Your task to perform on an android device: Go to ESPN.com Image 0: 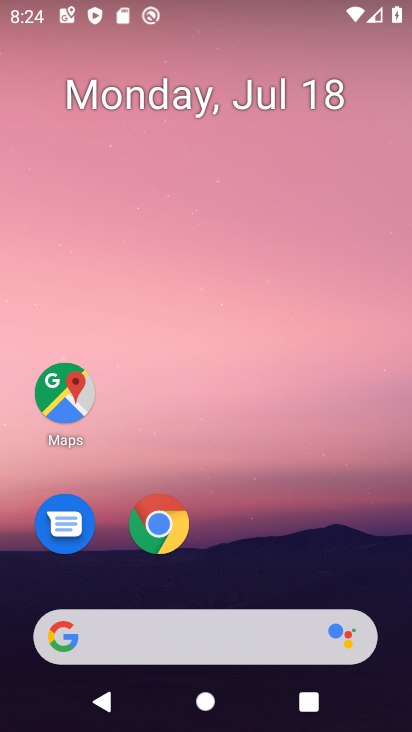
Step 0: click (227, 635)
Your task to perform on an android device: Go to ESPN.com Image 1: 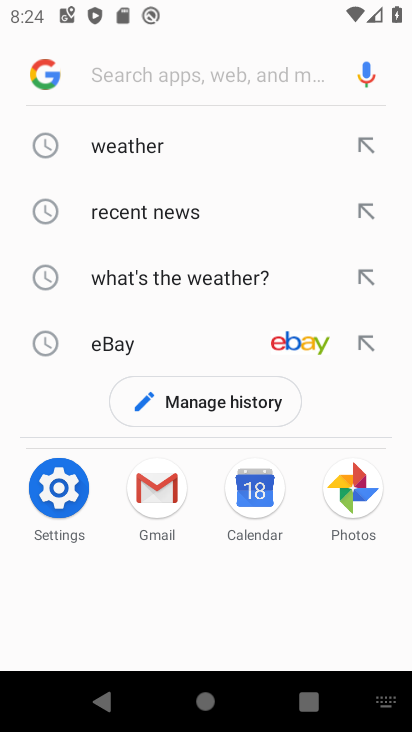
Step 1: type "espn.com"
Your task to perform on an android device: Go to ESPN.com Image 2: 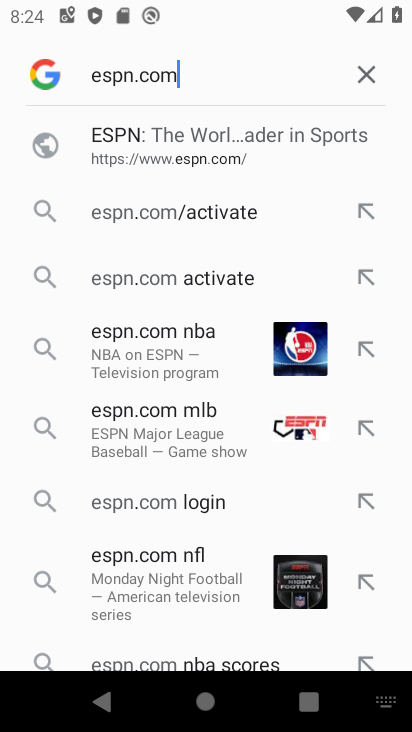
Step 2: click (123, 141)
Your task to perform on an android device: Go to ESPN.com Image 3: 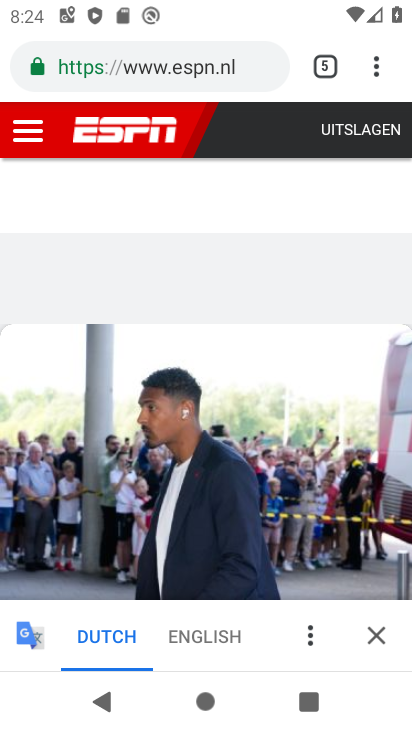
Step 3: task complete